Your task to perform on an android device: turn off wifi Image 0: 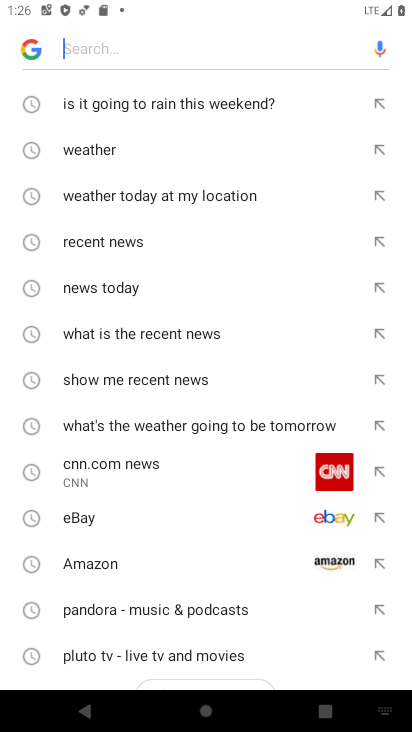
Step 0: press home button
Your task to perform on an android device: turn off wifi Image 1: 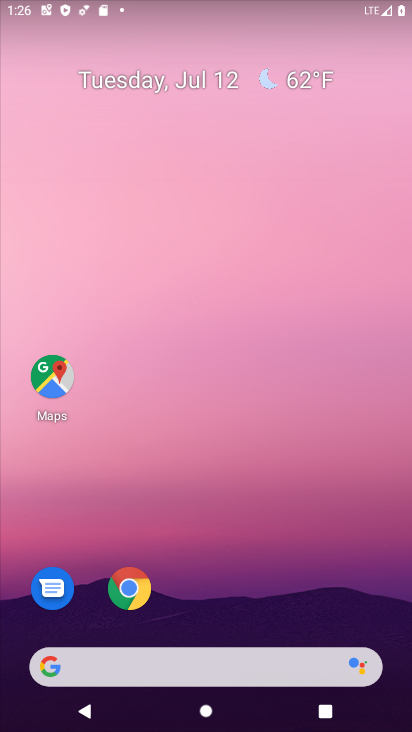
Step 1: drag from (145, 710) to (49, 17)
Your task to perform on an android device: turn off wifi Image 2: 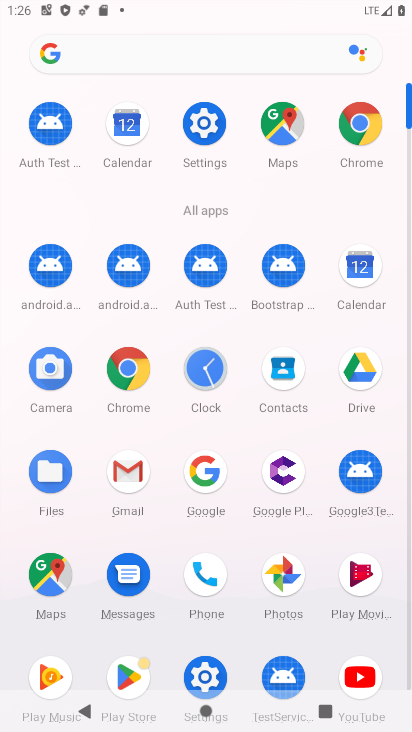
Step 2: click (194, 127)
Your task to perform on an android device: turn off wifi Image 3: 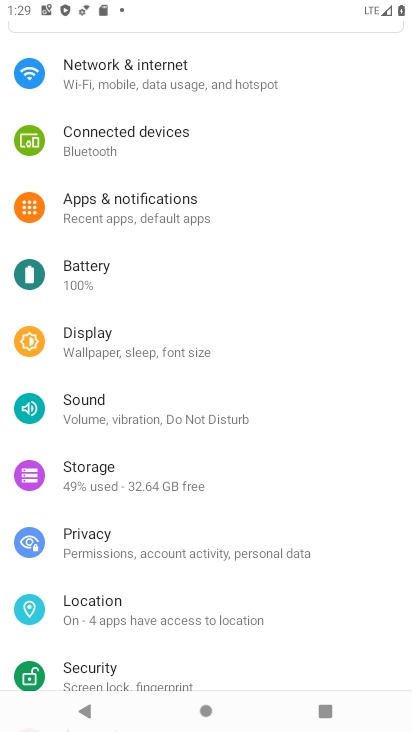
Step 3: click (203, 82)
Your task to perform on an android device: turn off wifi Image 4: 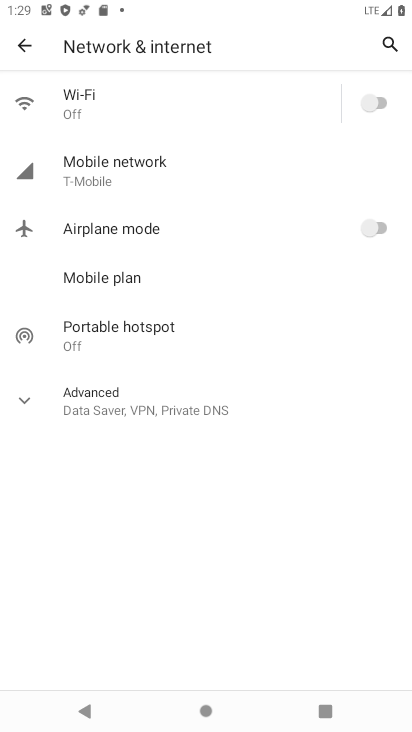
Step 4: task complete